Your task to perform on an android device: turn off improve location accuracy Image 0: 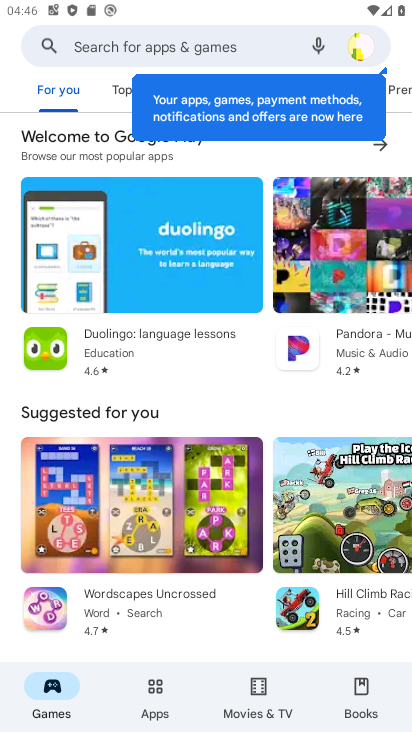
Step 0: press home button
Your task to perform on an android device: turn off improve location accuracy Image 1: 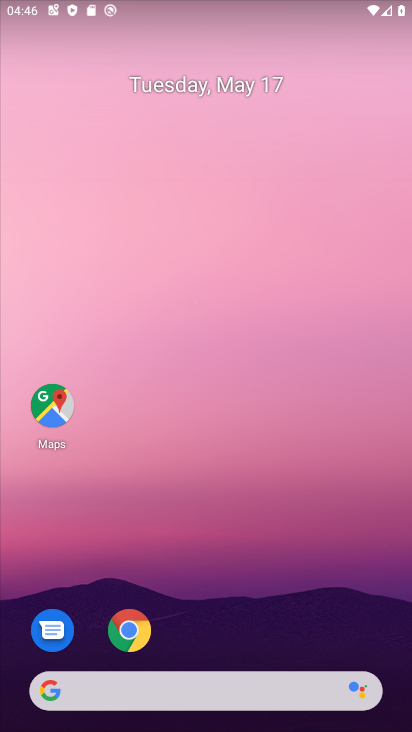
Step 1: drag from (273, 585) to (372, 71)
Your task to perform on an android device: turn off improve location accuracy Image 2: 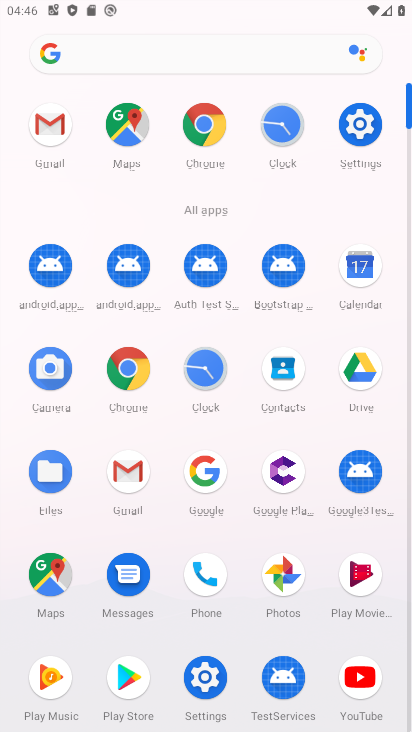
Step 2: click (358, 114)
Your task to perform on an android device: turn off improve location accuracy Image 3: 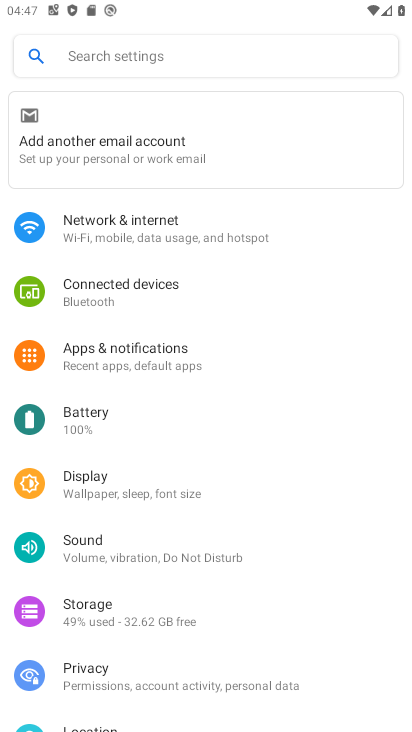
Step 3: drag from (223, 647) to (231, 243)
Your task to perform on an android device: turn off improve location accuracy Image 4: 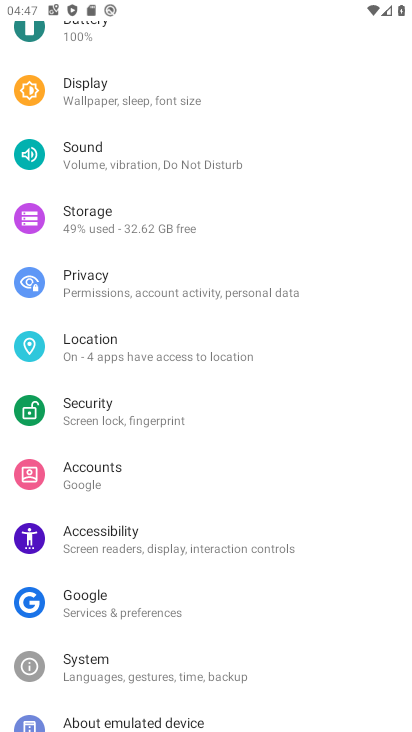
Step 4: click (111, 341)
Your task to perform on an android device: turn off improve location accuracy Image 5: 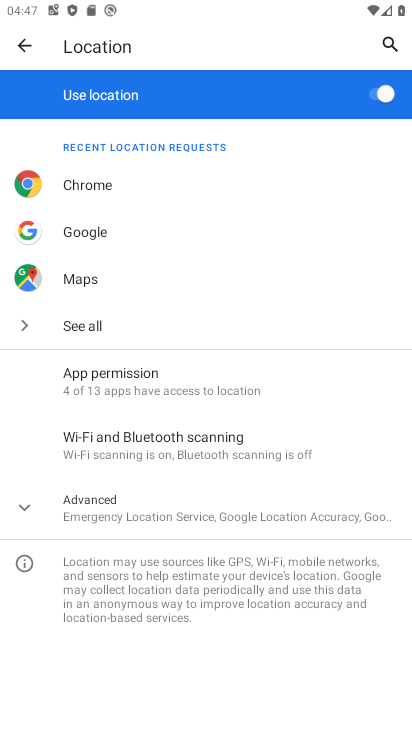
Step 5: click (377, 91)
Your task to perform on an android device: turn off improve location accuracy Image 6: 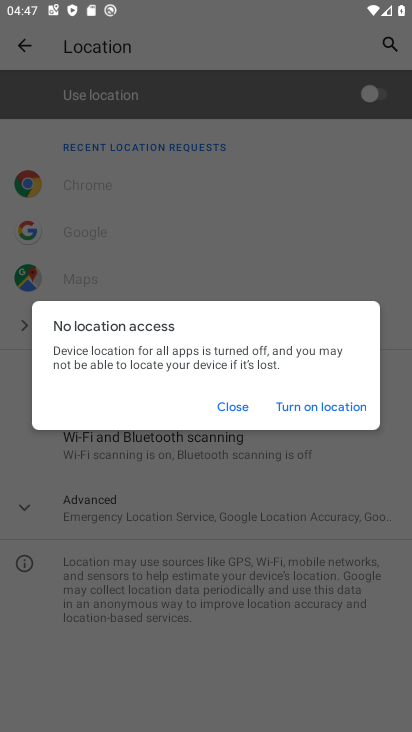
Step 6: task complete